Your task to perform on an android device: Open internet settings Image 0: 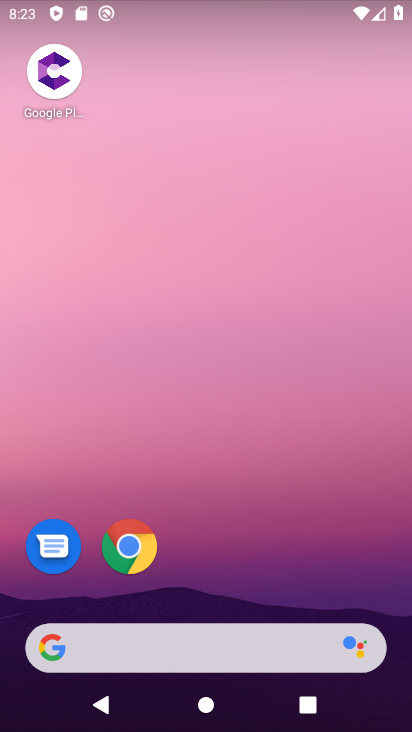
Step 0: drag from (264, 600) to (268, 126)
Your task to perform on an android device: Open internet settings Image 1: 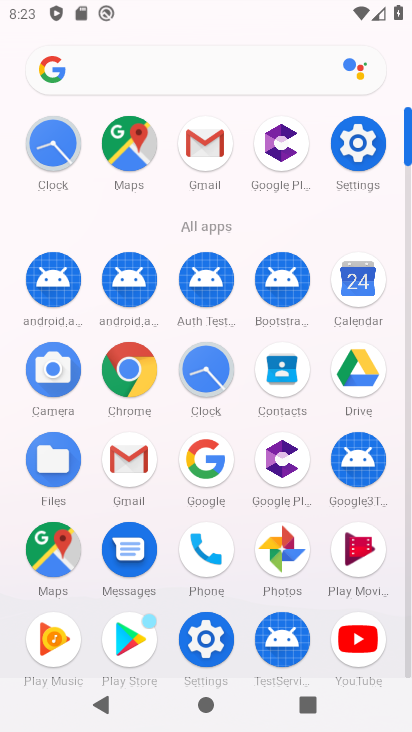
Step 1: click (354, 145)
Your task to perform on an android device: Open internet settings Image 2: 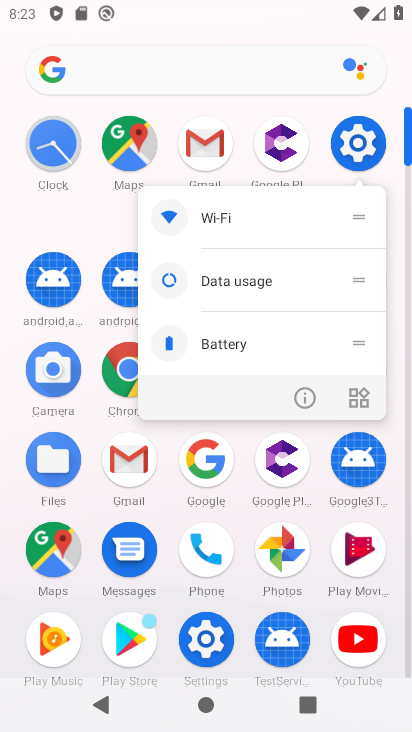
Step 2: click (353, 145)
Your task to perform on an android device: Open internet settings Image 3: 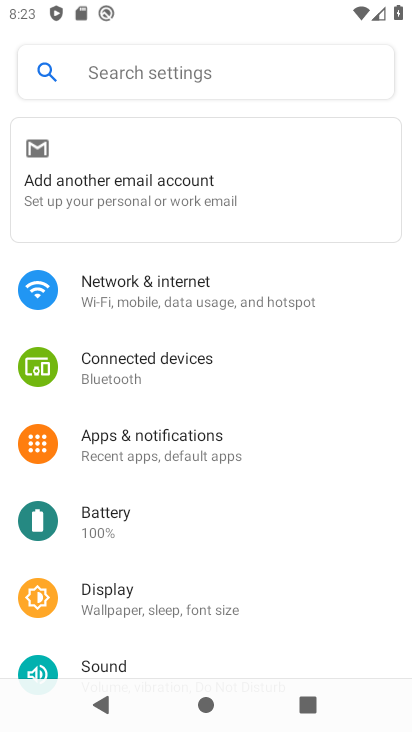
Step 3: click (190, 292)
Your task to perform on an android device: Open internet settings Image 4: 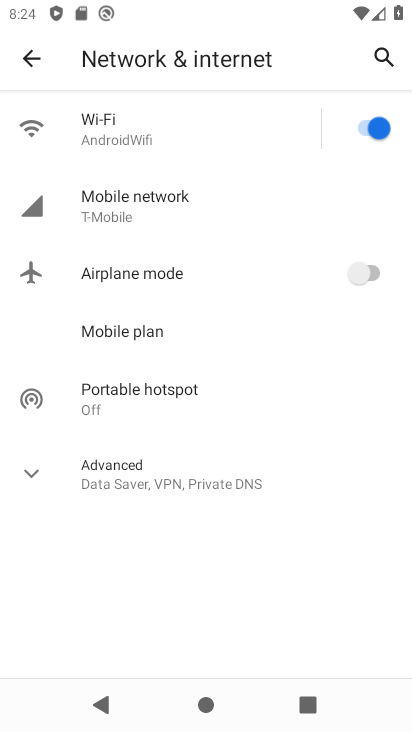
Step 4: task complete